Your task to perform on an android device: toggle notification dots Image 0: 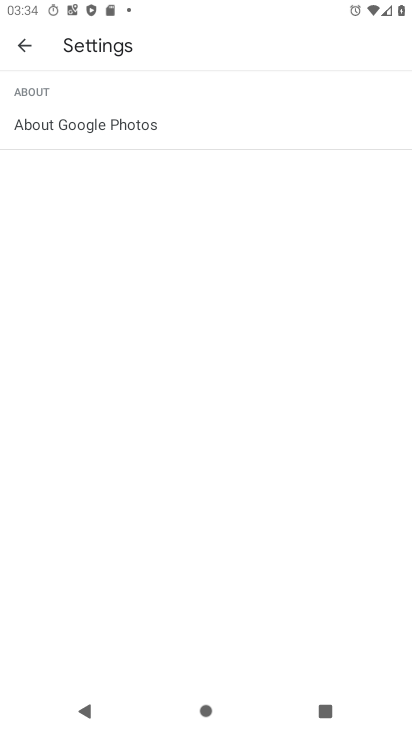
Step 0: press back button
Your task to perform on an android device: toggle notification dots Image 1: 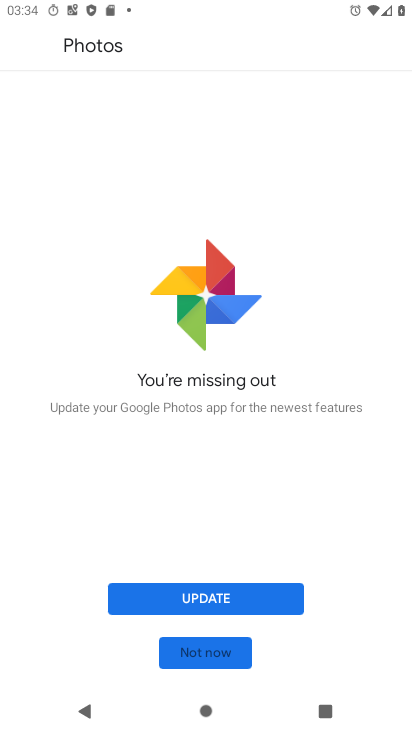
Step 1: press home button
Your task to perform on an android device: toggle notification dots Image 2: 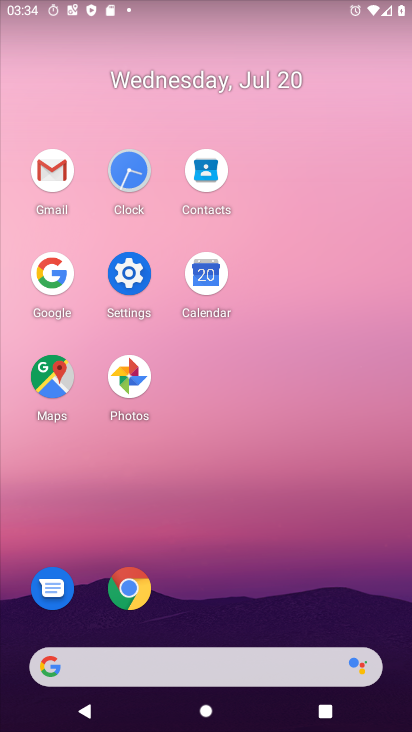
Step 2: click (130, 287)
Your task to perform on an android device: toggle notification dots Image 3: 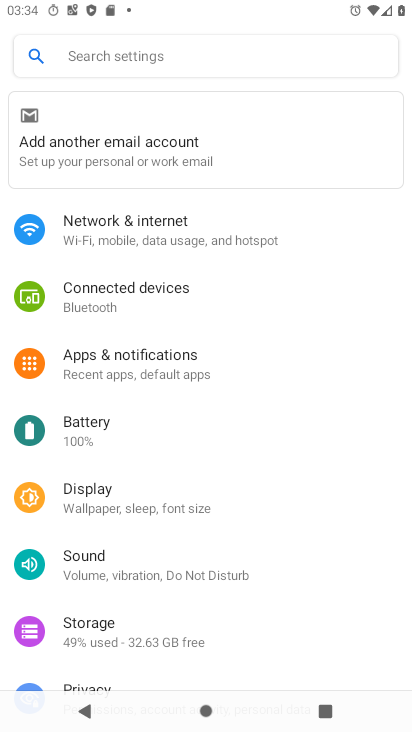
Step 3: click (179, 350)
Your task to perform on an android device: toggle notification dots Image 4: 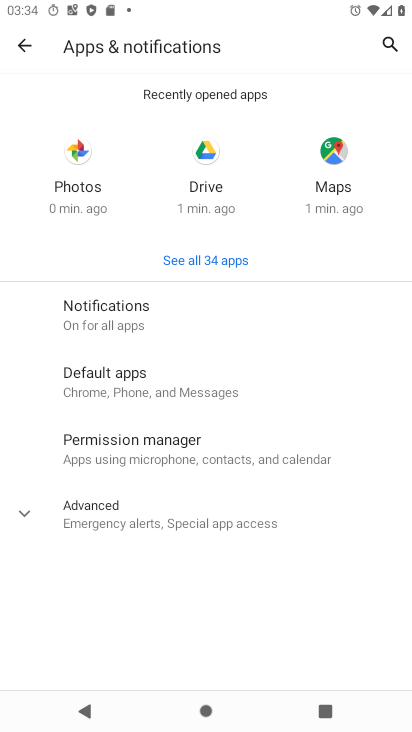
Step 4: click (141, 309)
Your task to perform on an android device: toggle notification dots Image 5: 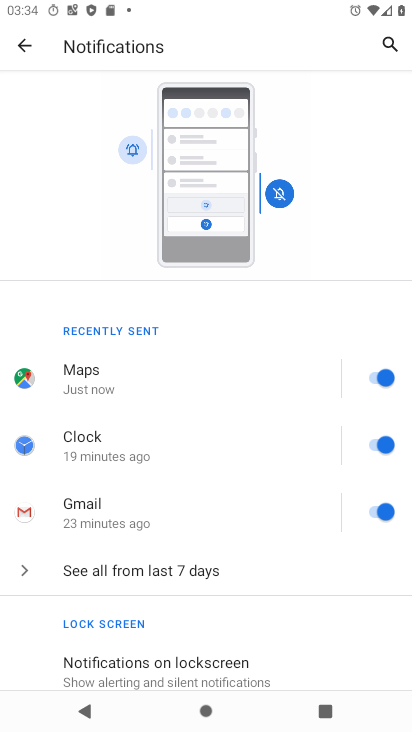
Step 5: drag from (107, 523) to (74, 262)
Your task to perform on an android device: toggle notification dots Image 6: 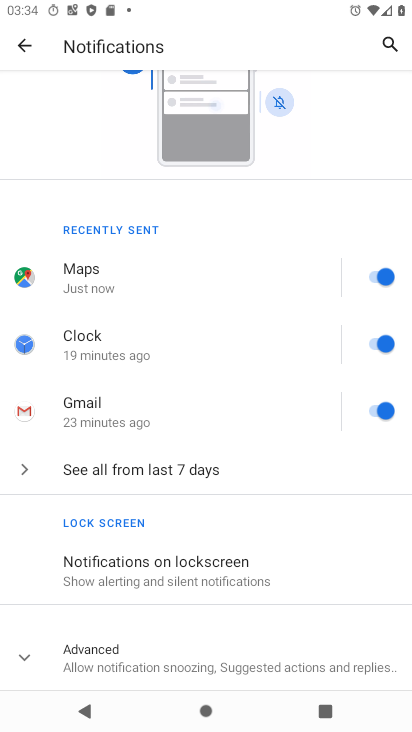
Step 6: click (100, 638)
Your task to perform on an android device: toggle notification dots Image 7: 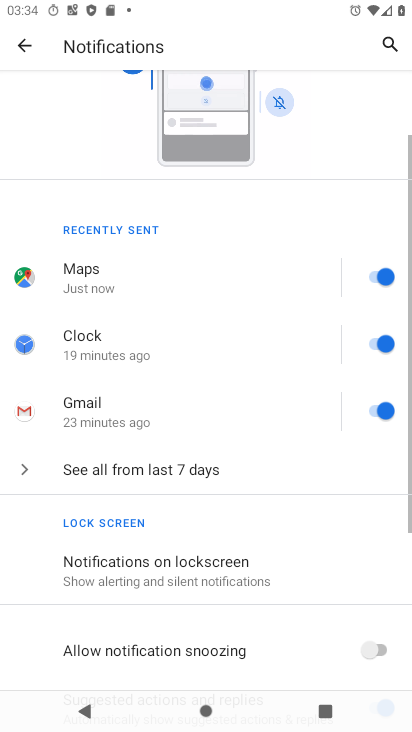
Step 7: drag from (135, 598) to (176, 278)
Your task to perform on an android device: toggle notification dots Image 8: 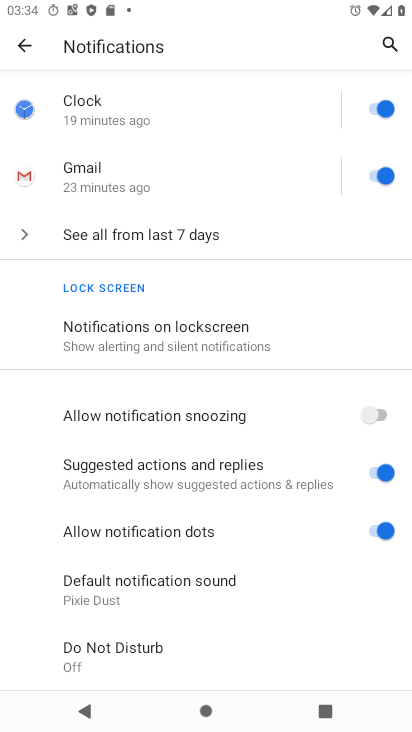
Step 8: click (388, 526)
Your task to perform on an android device: toggle notification dots Image 9: 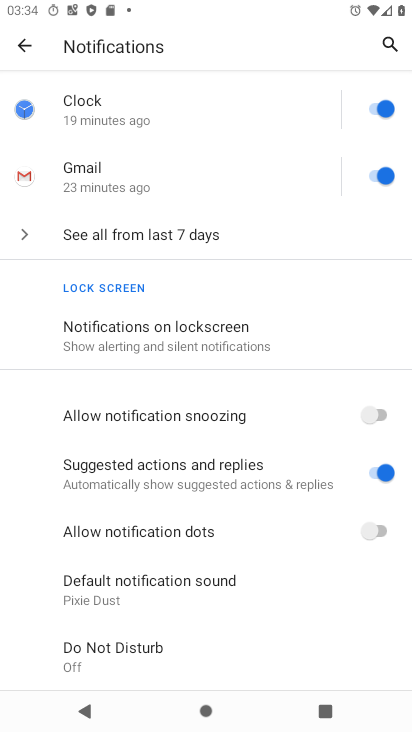
Step 9: task complete